Your task to perform on an android device: toggle sleep mode Image 0: 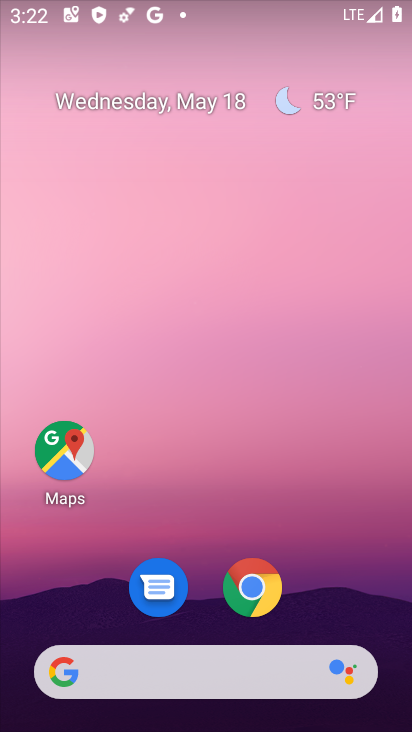
Step 0: drag from (216, 637) to (216, 318)
Your task to perform on an android device: toggle sleep mode Image 1: 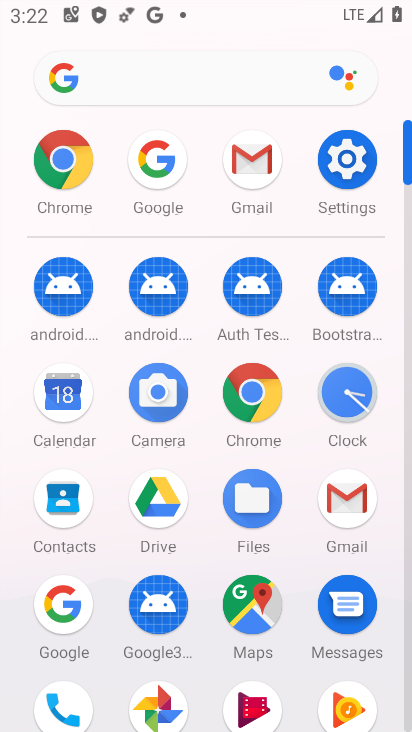
Step 1: click (345, 195)
Your task to perform on an android device: toggle sleep mode Image 2: 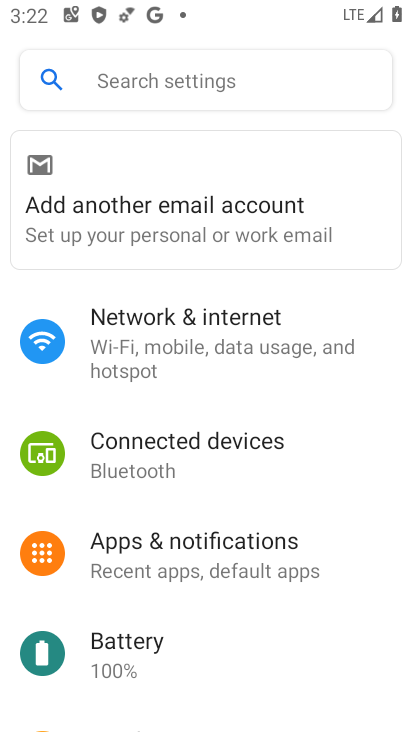
Step 2: drag from (205, 508) to (229, 363)
Your task to perform on an android device: toggle sleep mode Image 3: 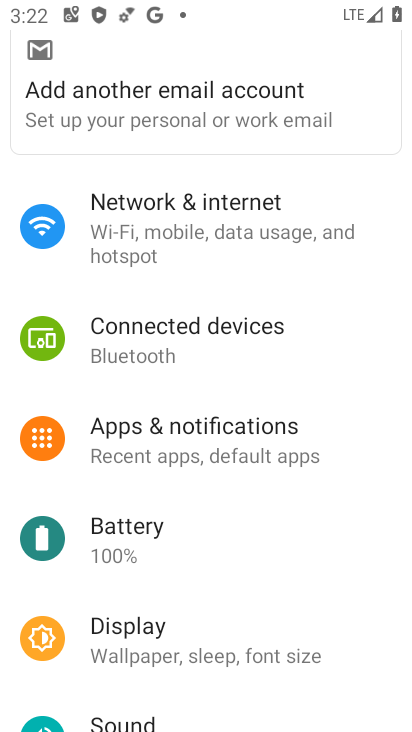
Step 3: click (210, 636)
Your task to perform on an android device: toggle sleep mode Image 4: 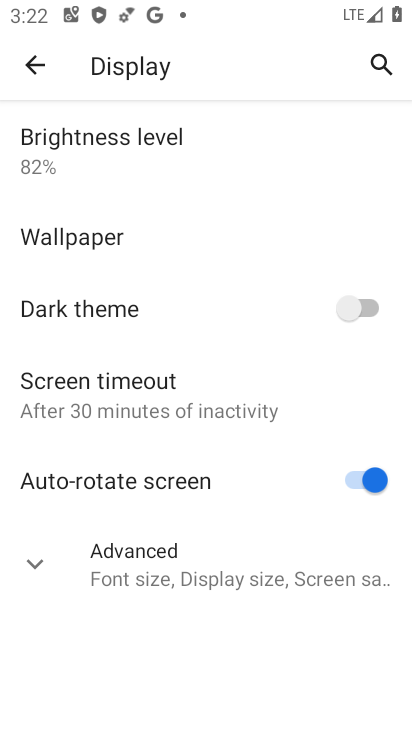
Step 4: click (213, 579)
Your task to perform on an android device: toggle sleep mode Image 5: 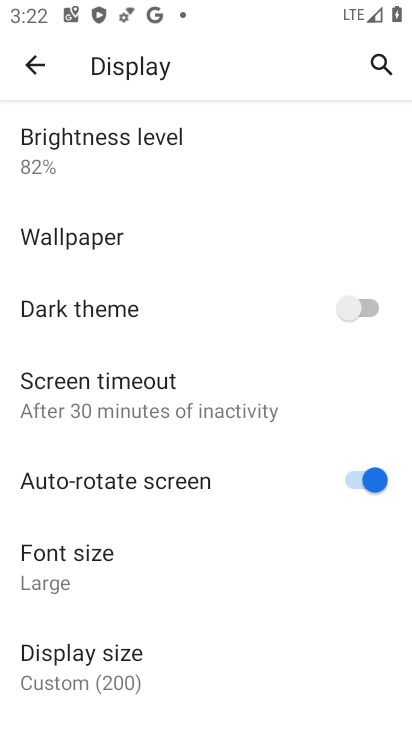
Step 5: task complete